Your task to perform on an android device: Open location settings Image 0: 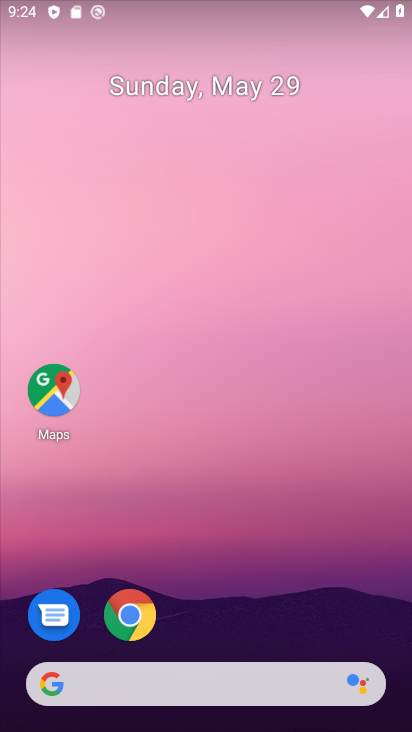
Step 0: drag from (216, 654) to (208, 31)
Your task to perform on an android device: Open location settings Image 1: 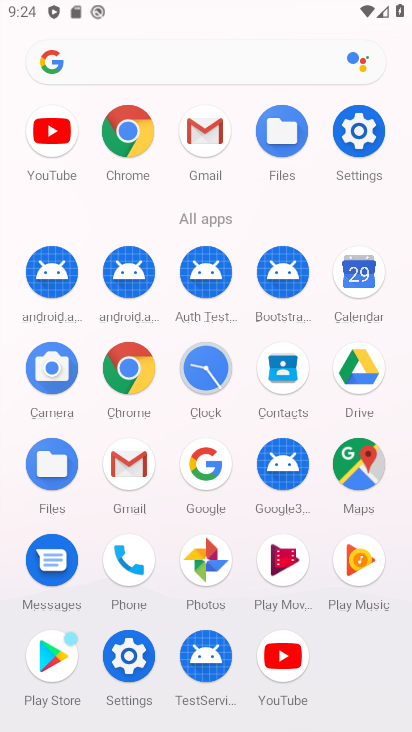
Step 1: click (129, 646)
Your task to perform on an android device: Open location settings Image 2: 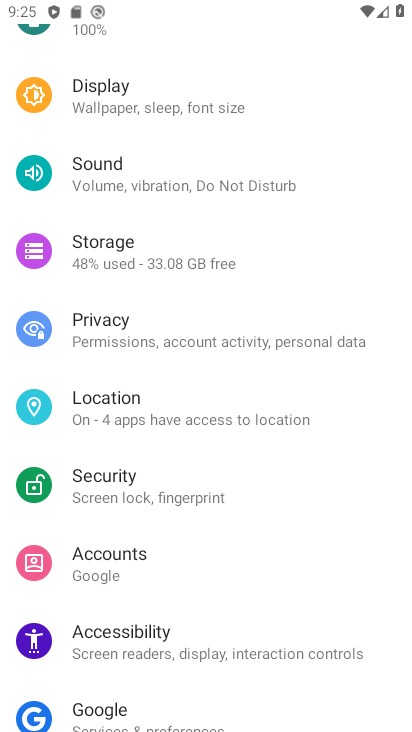
Step 2: click (115, 376)
Your task to perform on an android device: Open location settings Image 3: 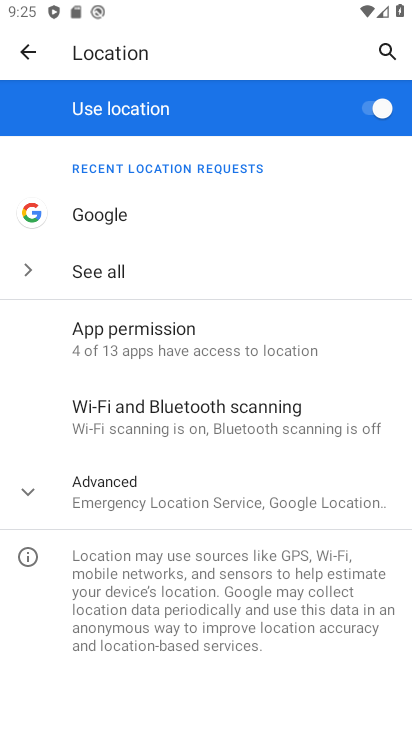
Step 3: task complete